Your task to perform on an android device: all mails in gmail Image 0: 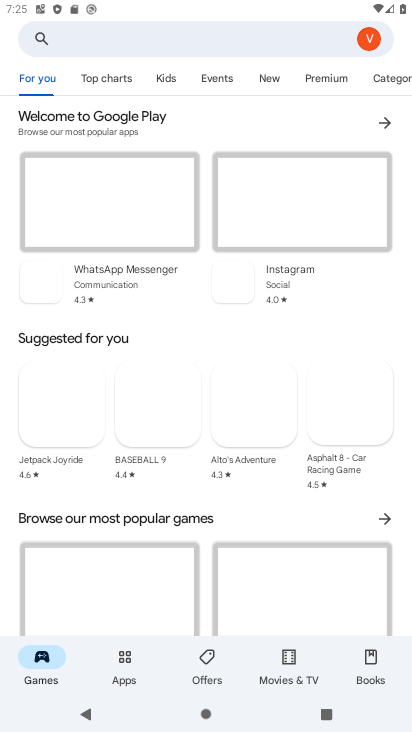
Step 0: press home button
Your task to perform on an android device: all mails in gmail Image 1: 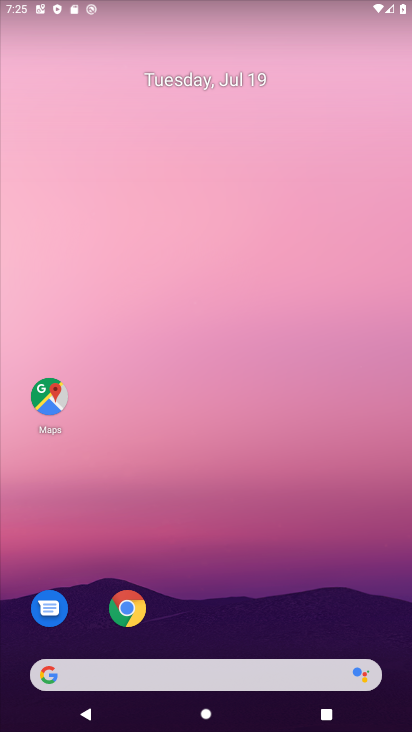
Step 1: drag from (213, 655) to (321, 137)
Your task to perform on an android device: all mails in gmail Image 2: 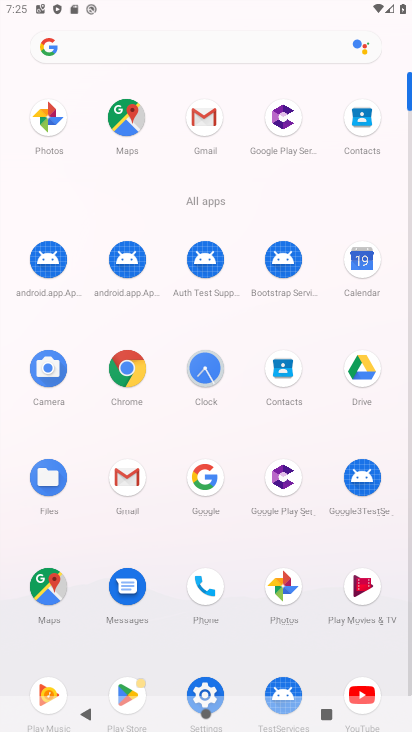
Step 2: click (205, 114)
Your task to perform on an android device: all mails in gmail Image 3: 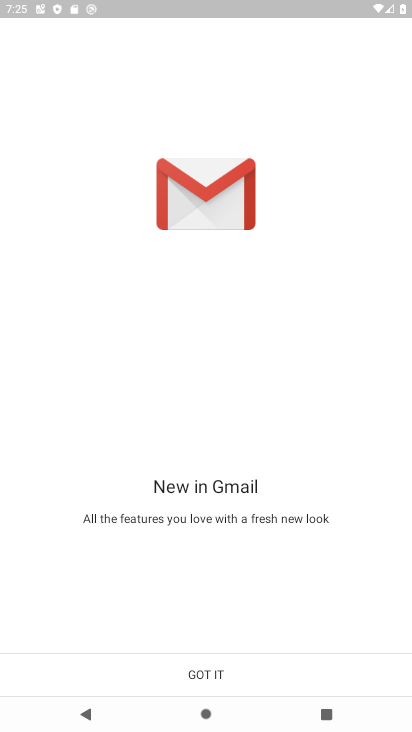
Step 3: click (206, 674)
Your task to perform on an android device: all mails in gmail Image 4: 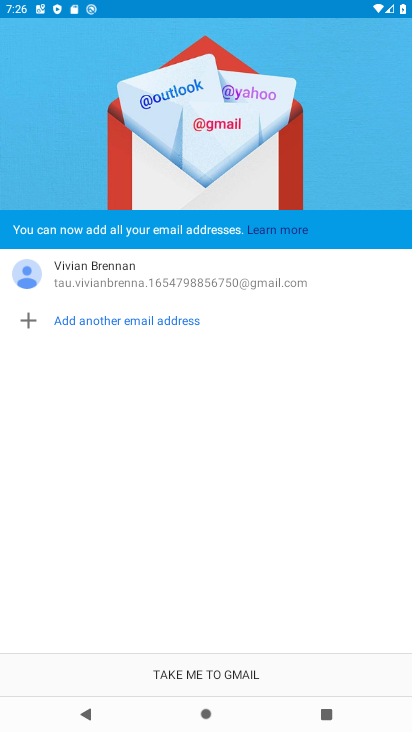
Step 4: click (206, 674)
Your task to perform on an android device: all mails in gmail Image 5: 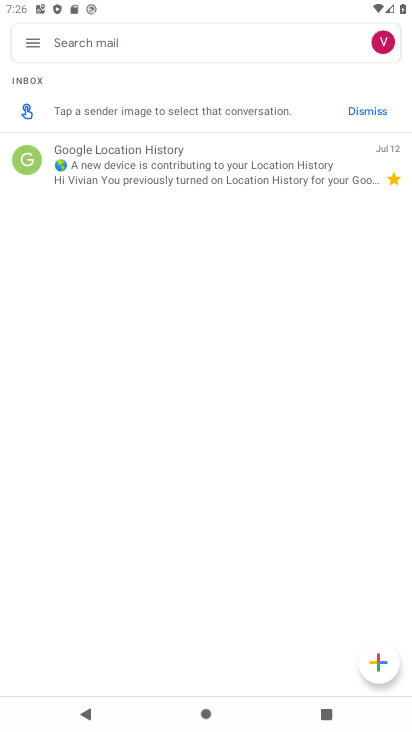
Step 5: click (37, 38)
Your task to perform on an android device: all mails in gmail Image 6: 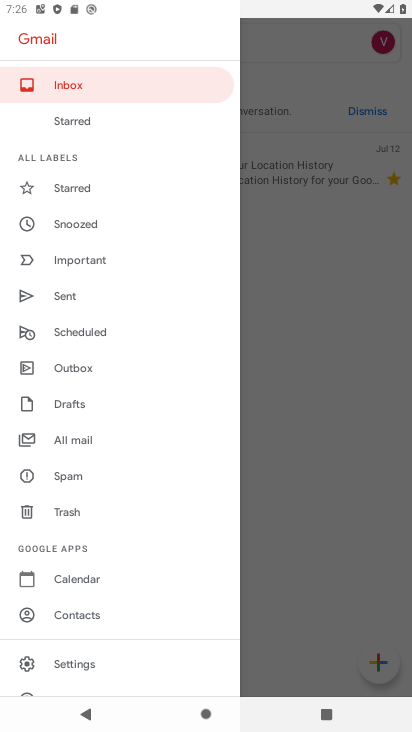
Step 6: click (74, 440)
Your task to perform on an android device: all mails in gmail Image 7: 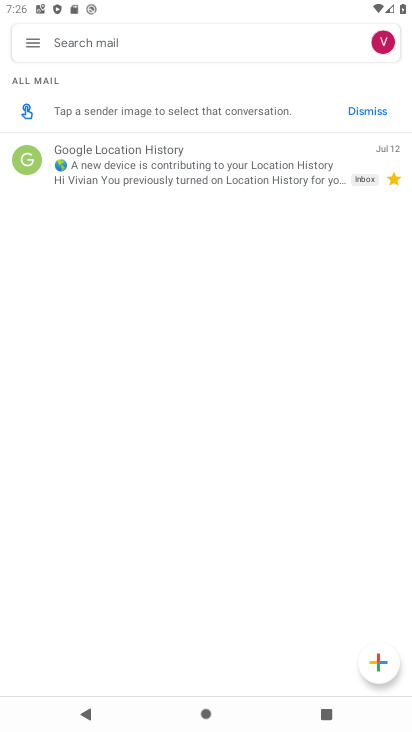
Step 7: task complete